Your task to perform on an android device: toggle translation in the chrome app Image 0: 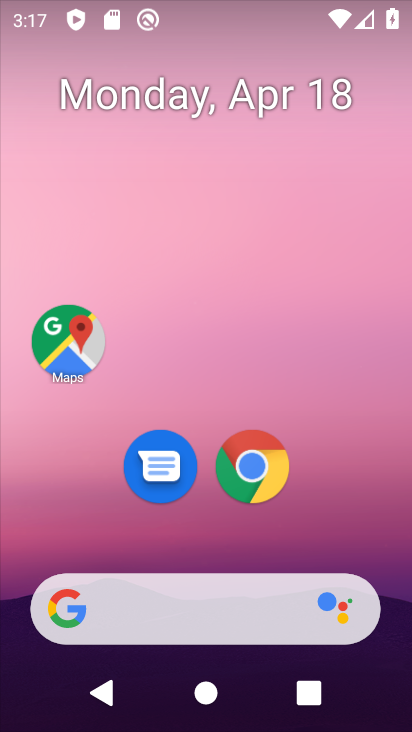
Step 0: click (287, 492)
Your task to perform on an android device: toggle translation in the chrome app Image 1: 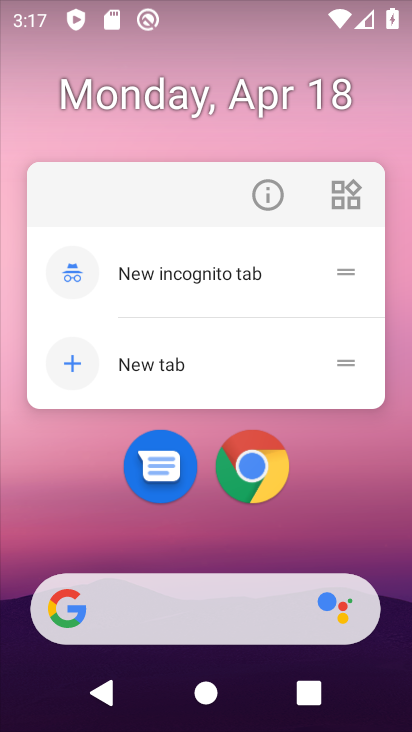
Step 1: click (258, 488)
Your task to perform on an android device: toggle translation in the chrome app Image 2: 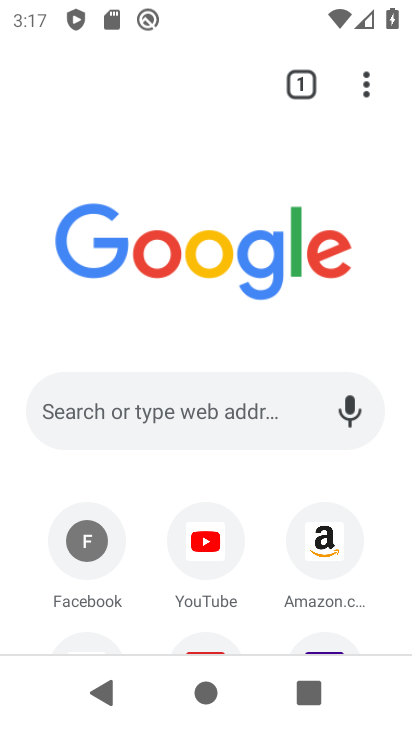
Step 2: click (362, 87)
Your task to perform on an android device: toggle translation in the chrome app Image 3: 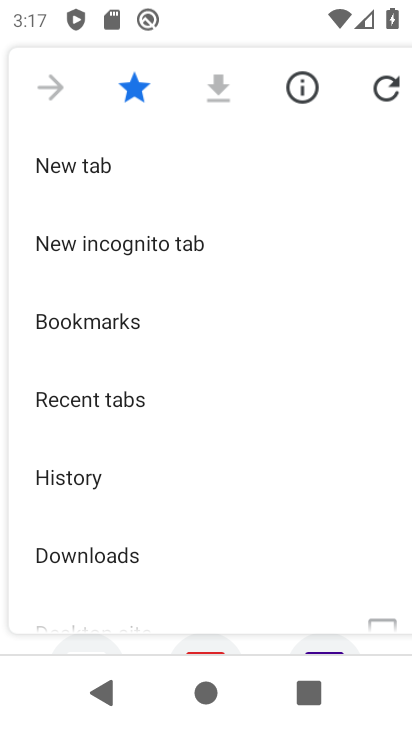
Step 3: drag from (183, 531) to (228, 200)
Your task to perform on an android device: toggle translation in the chrome app Image 4: 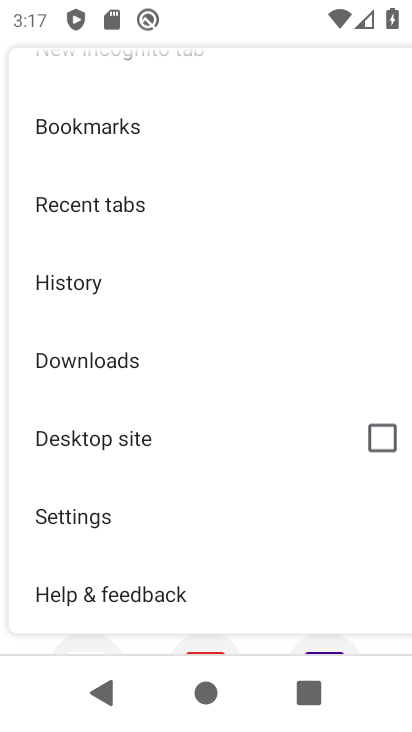
Step 4: click (159, 497)
Your task to perform on an android device: toggle translation in the chrome app Image 5: 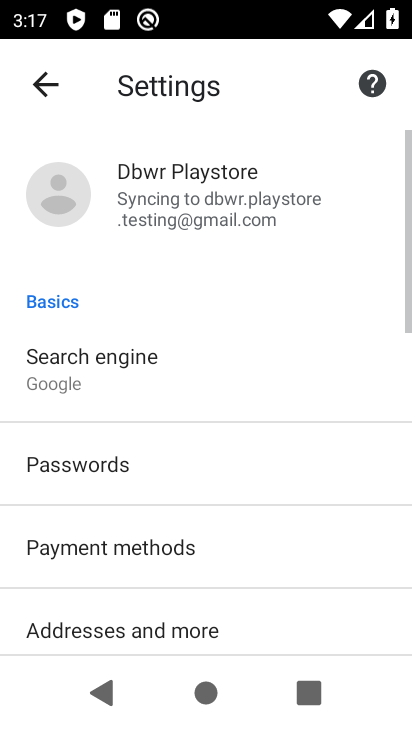
Step 5: drag from (194, 571) to (261, 271)
Your task to perform on an android device: toggle translation in the chrome app Image 6: 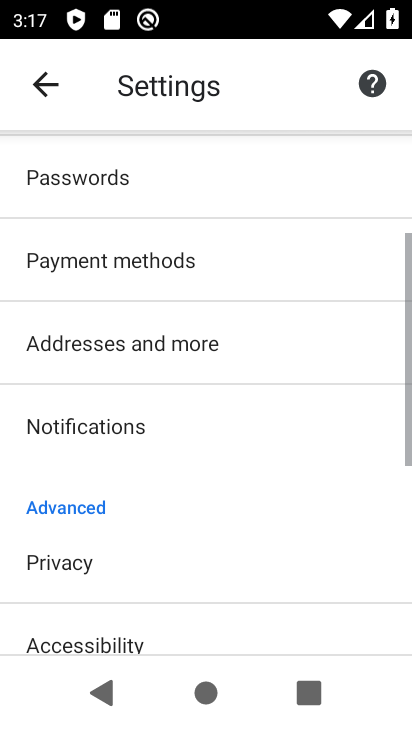
Step 6: drag from (213, 517) to (244, 285)
Your task to perform on an android device: toggle translation in the chrome app Image 7: 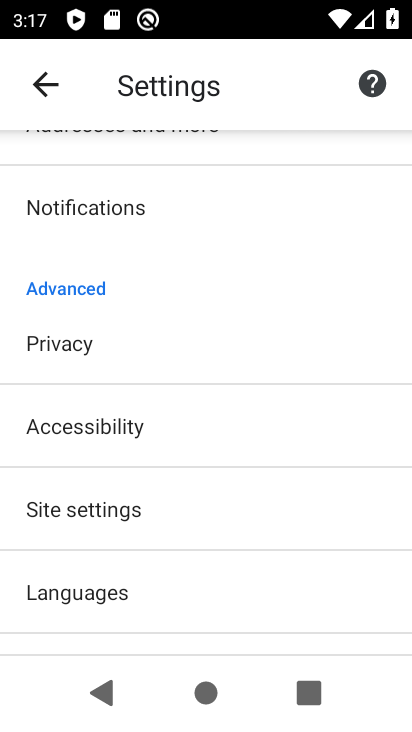
Step 7: click (175, 575)
Your task to perform on an android device: toggle translation in the chrome app Image 8: 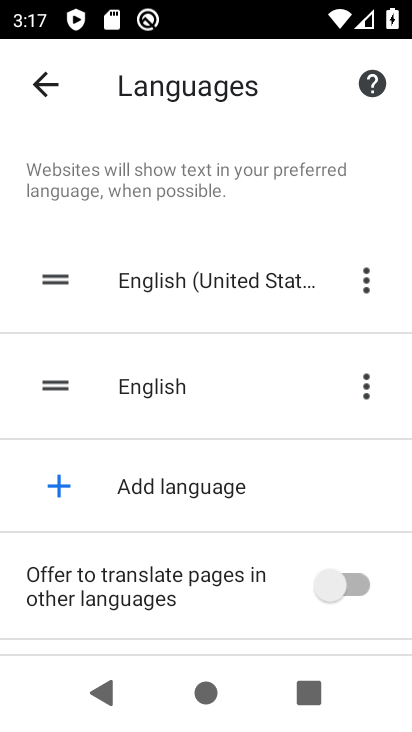
Step 8: click (228, 564)
Your task to perform on an android device: toggle translation in the chrome app Image 9: 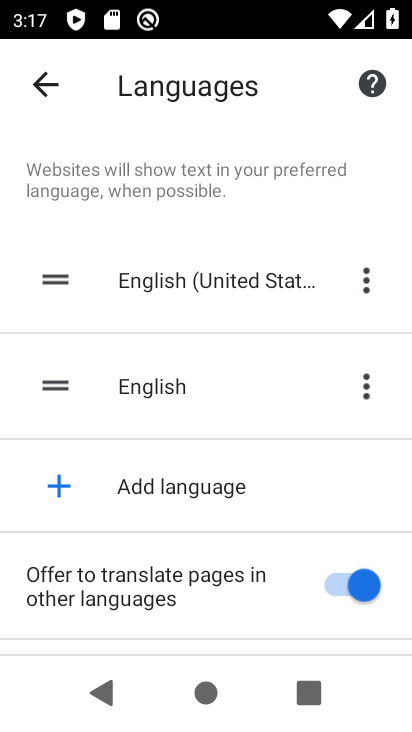
Step 9: task complete